Your task to perform on an android device: turn on the 12-hour format for clock Image 0: 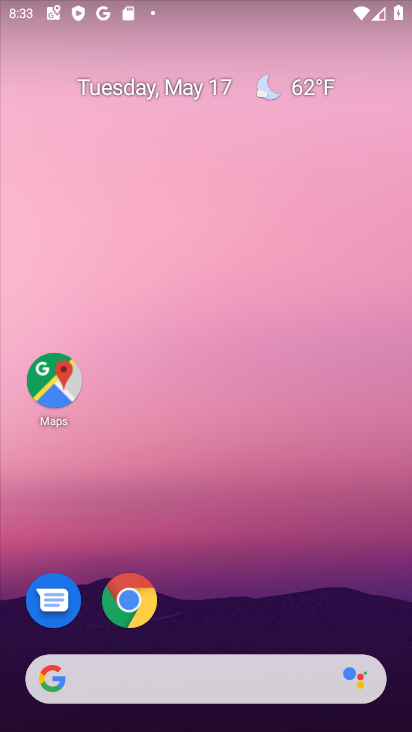
Step 0: drag from (200, 719) to (205, 217)
Your task to perform on an android device: turn on the 12-hour format for clock Image 1: 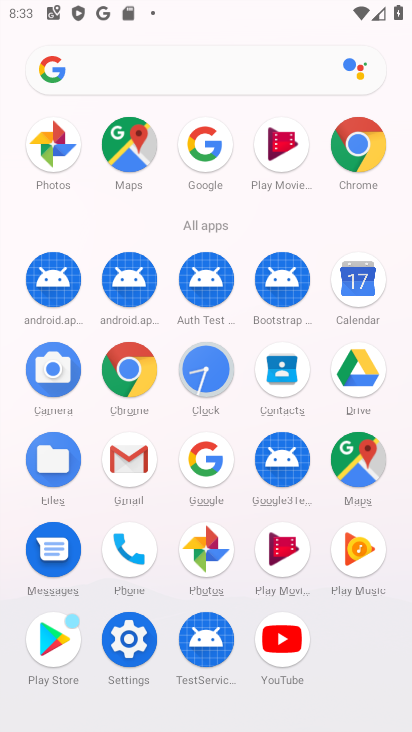
Step 1: click (208, 370)
Your task to perform on an android device: turn on the 12-hour format for clock Image 2: 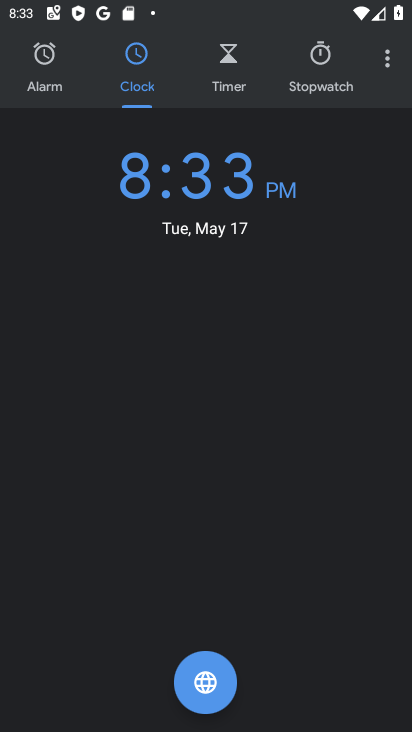
Step 2: click (388, 62)
Your task to perform on an android device: turn on the 12-hour format for clock Image 3: 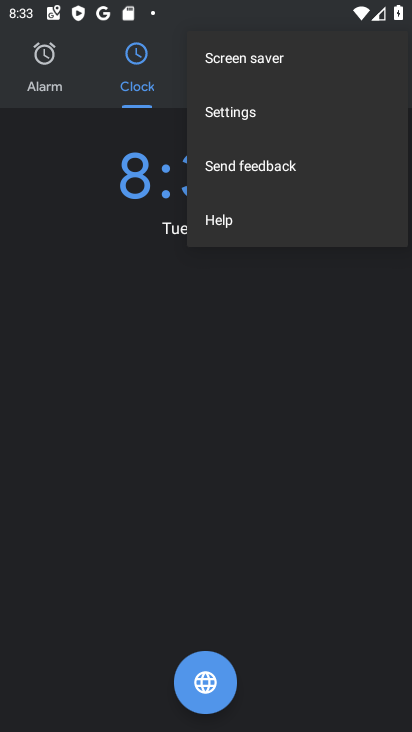
Step 3: click (249, 110)
Your task to perform on an android device: turn on the 12-hour format for clock Image 4: 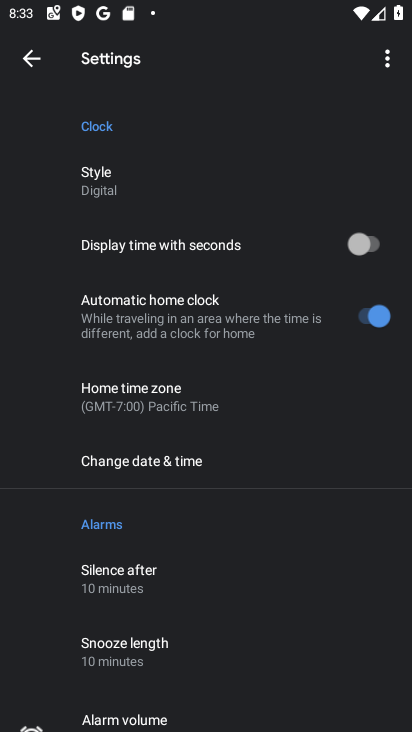
Step 4: drag from (117, 651) to (128, 204)
Your task to perform on an android device: turn on the 12-hour format for clock Image 5: 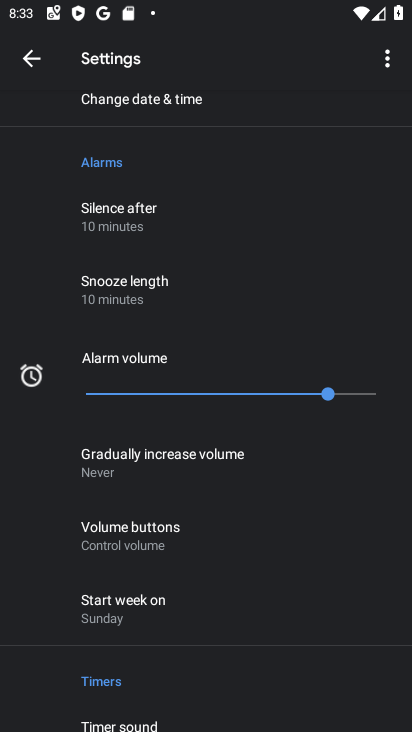
Step 5: drag from (241, 155) to (232, 463)
Your task to perform on an android device: turn on the 12-hour format for clock Image 6: 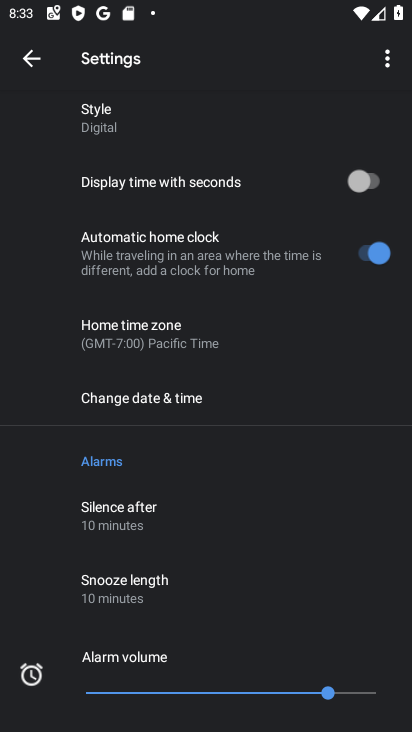
Step 6: click (150, 396)
Your task to perform on an android device: turn on the 12-hour format for clock Image 7: 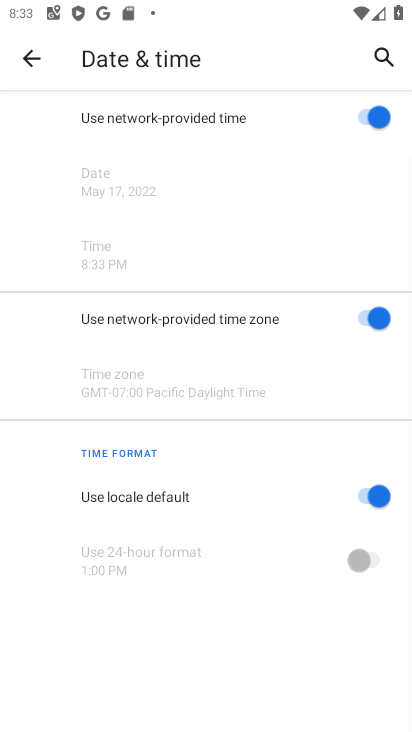
Step 7: task complete